Your task to perform on an android device: uninstall "LinkedIn" Image 0: 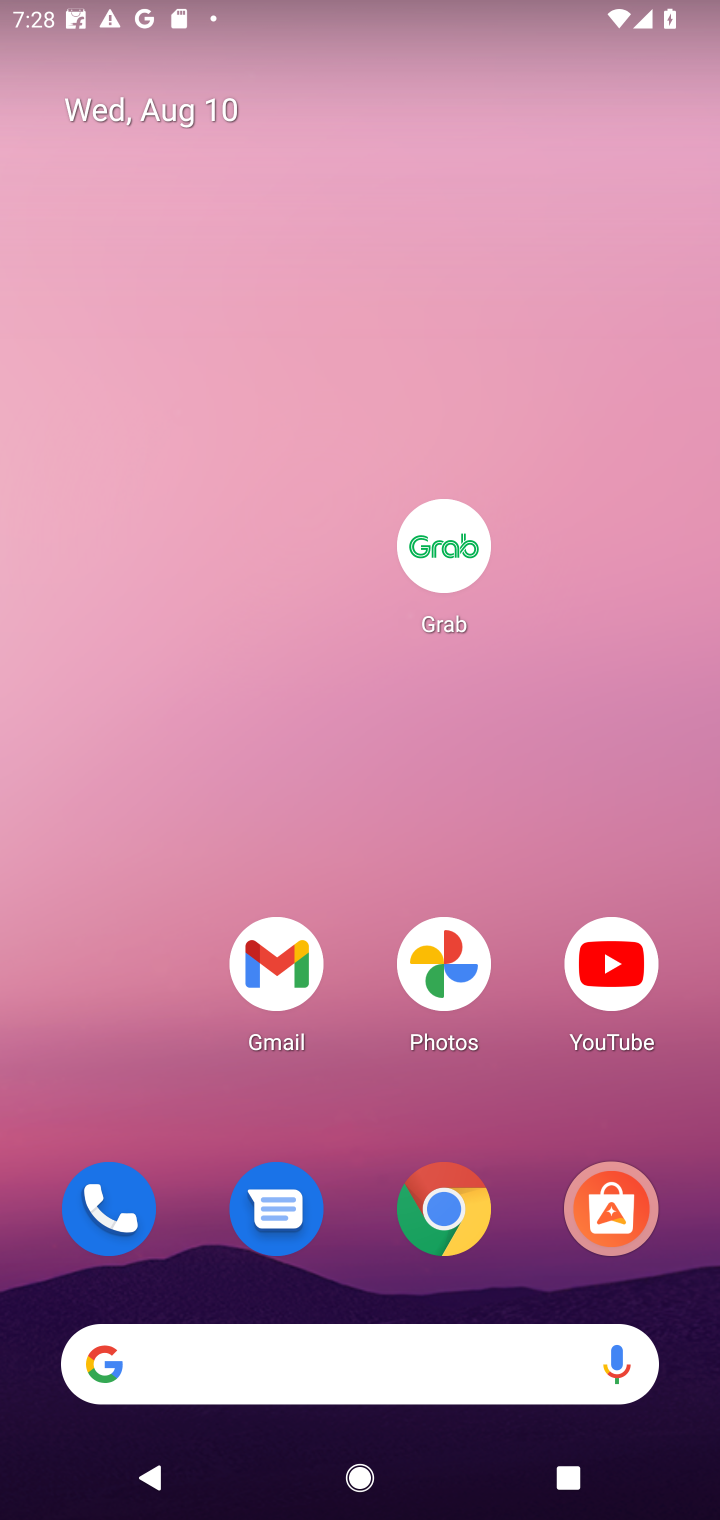
Step 0: drag from (367, 1276) to (362, 196)
Your task to perform on an android device: uninstall "LinkedIn" Image 1: 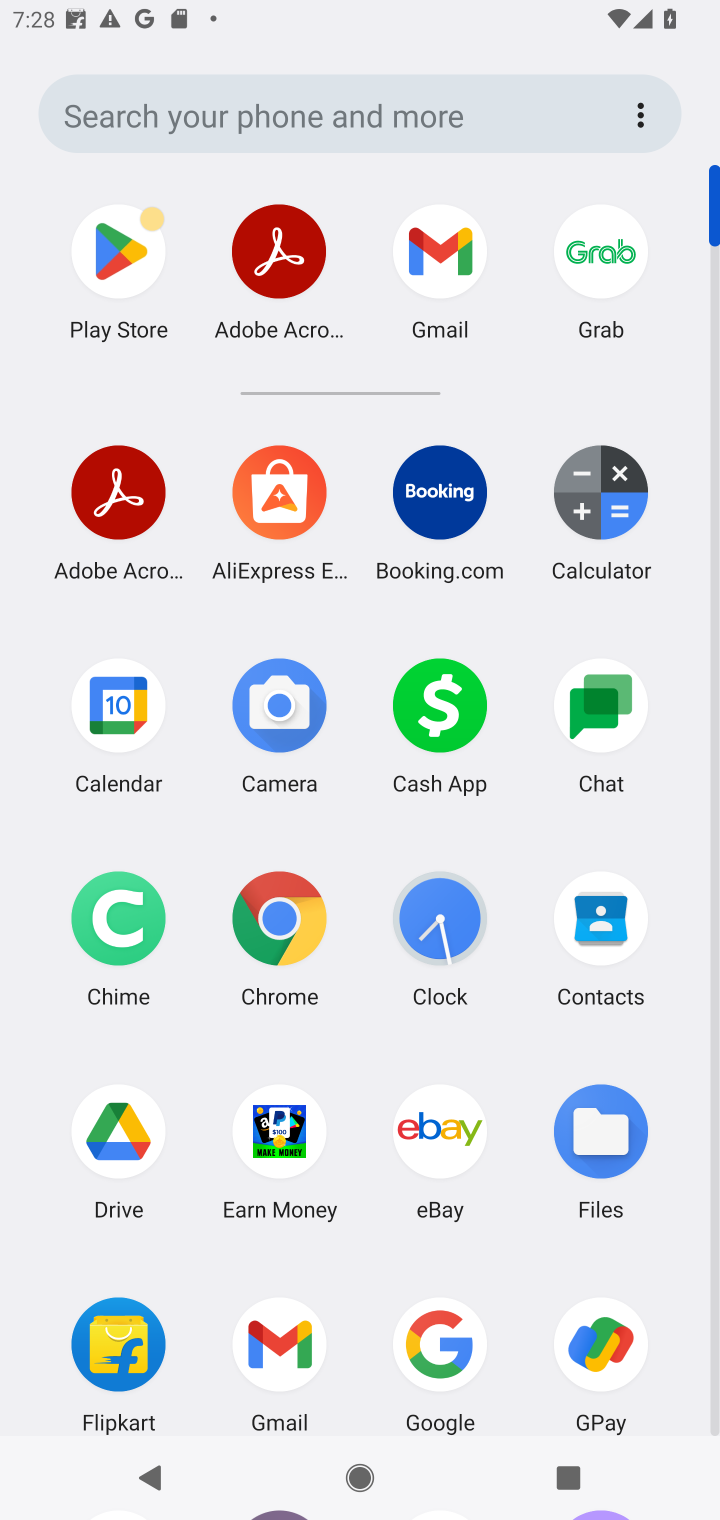
Step 1: click (120, 277)
Your task to perform on an android device: uninstall "LinkedIn" Image 2: 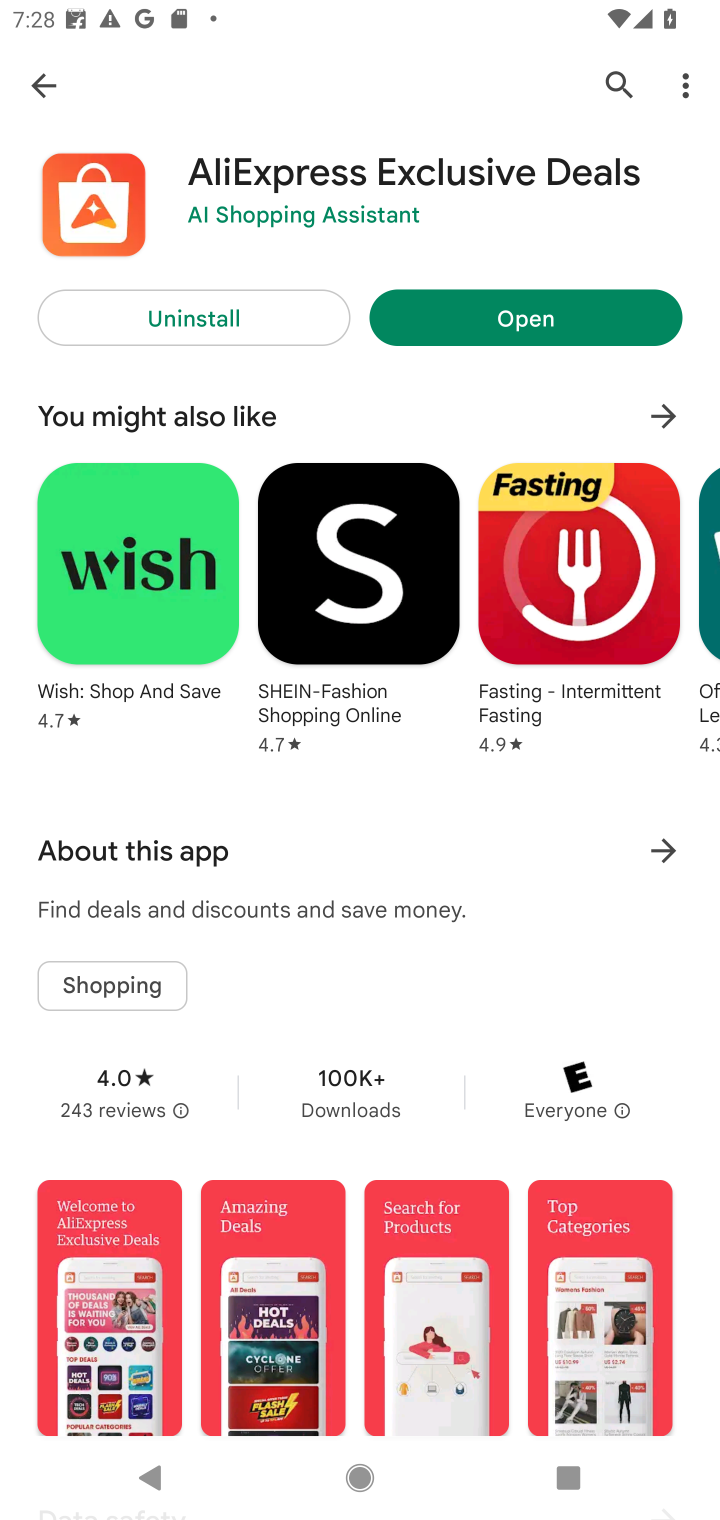
Step 2: click (620, 113)
Your task to perform on an android device: uninstall "LinkedIn" Image 3: 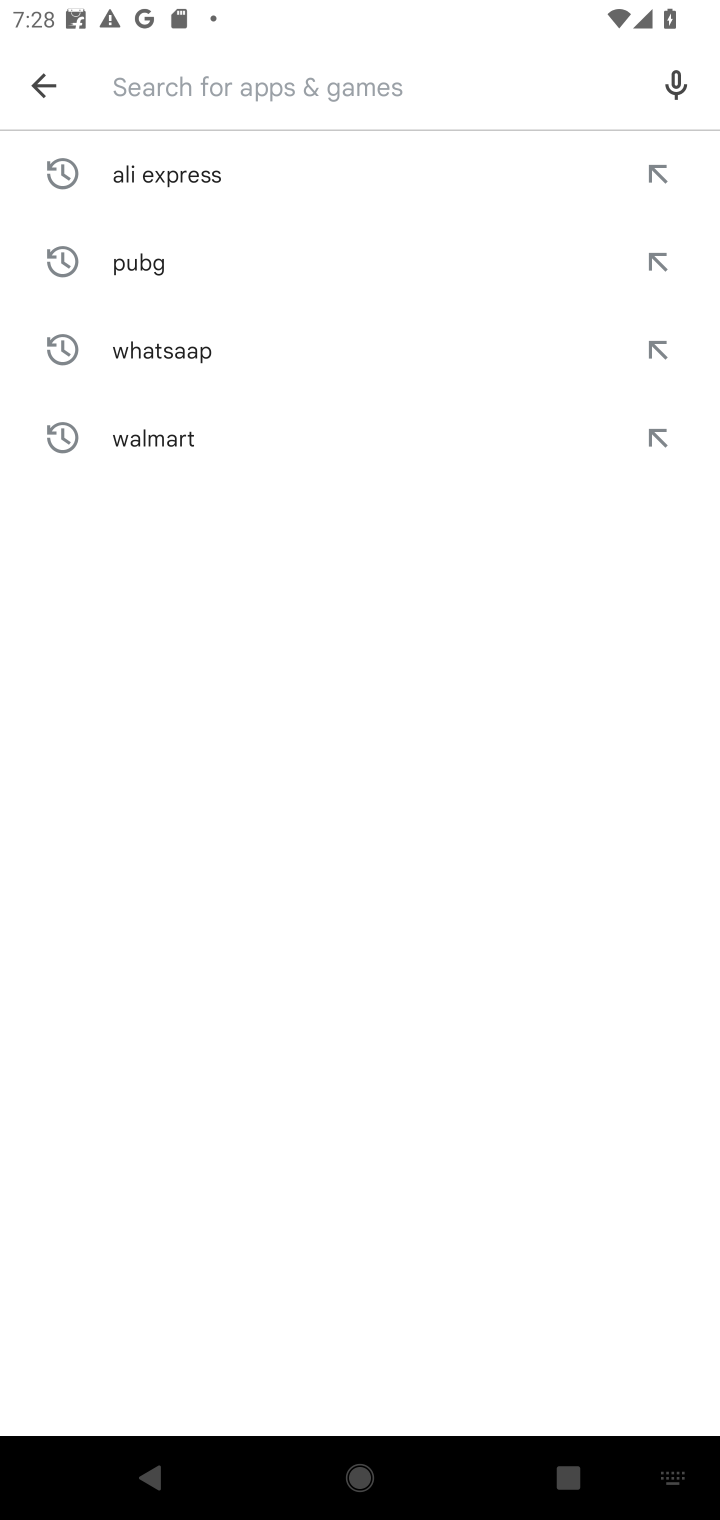
Step 3: type "kinkedin"
Your task to perform on an android device: uninstall "LinkedIn" Image 4: 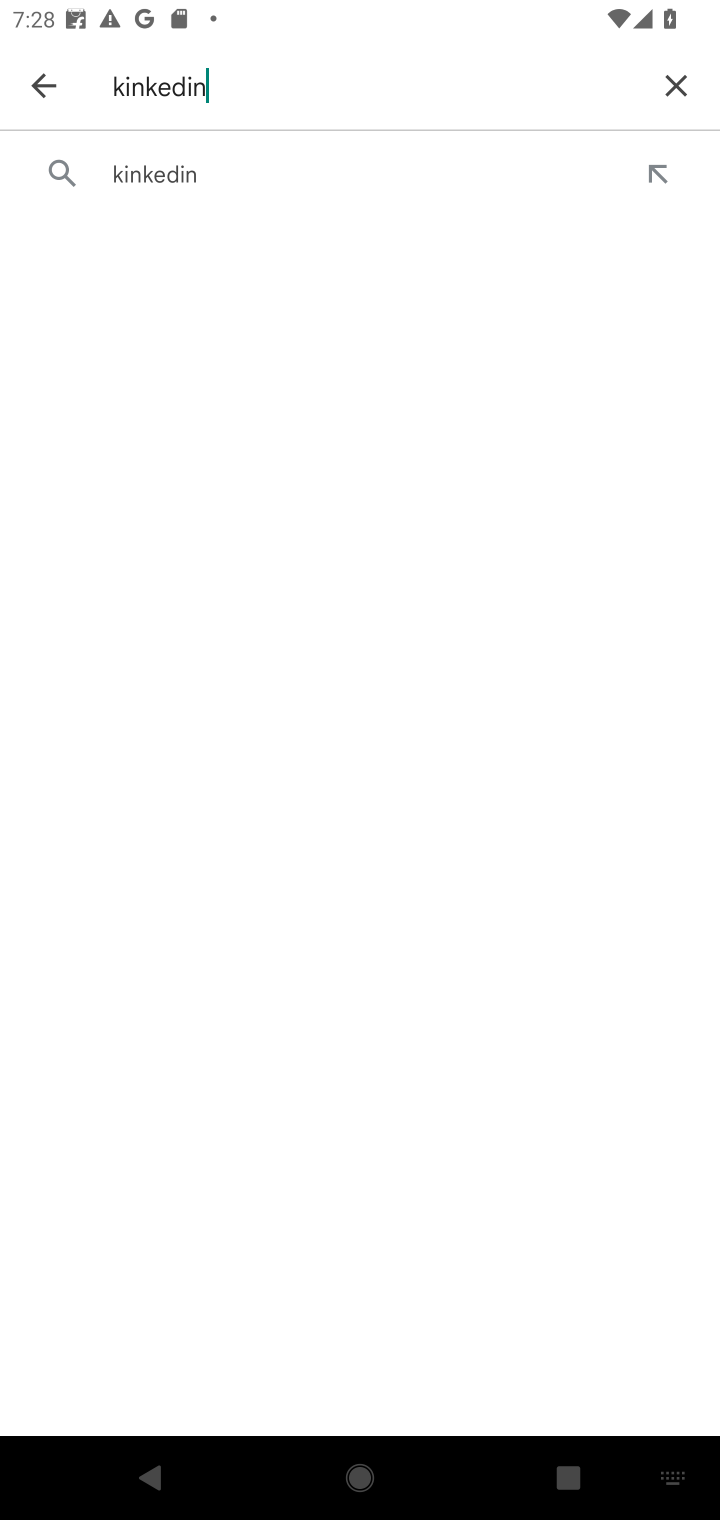
Step 4: click (283, 162)
Your task to perform on an android device: uninstall "LinkedIn" Image 5: 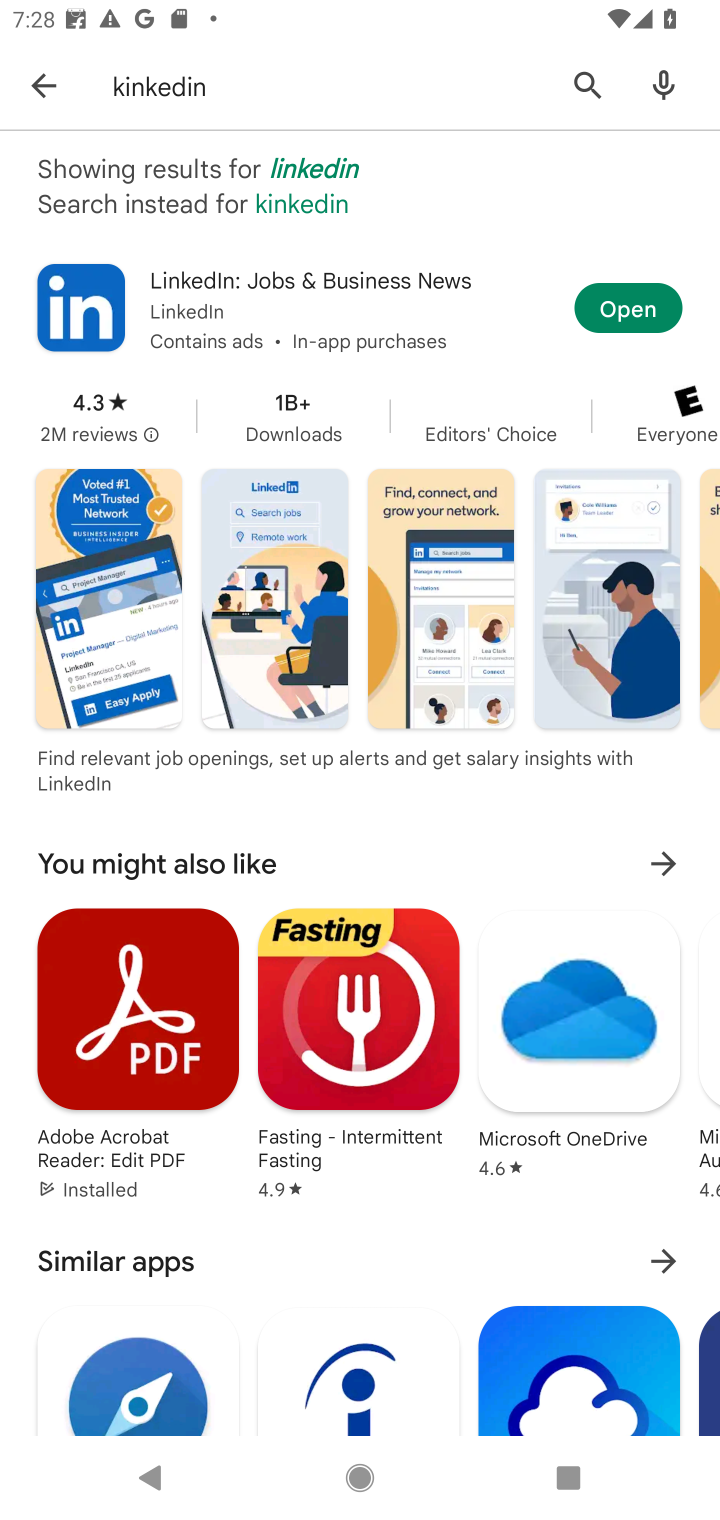
Step 5: click (585, 322)
Your task to perform on an android device: uninstall "LinkedIn" Image 6: 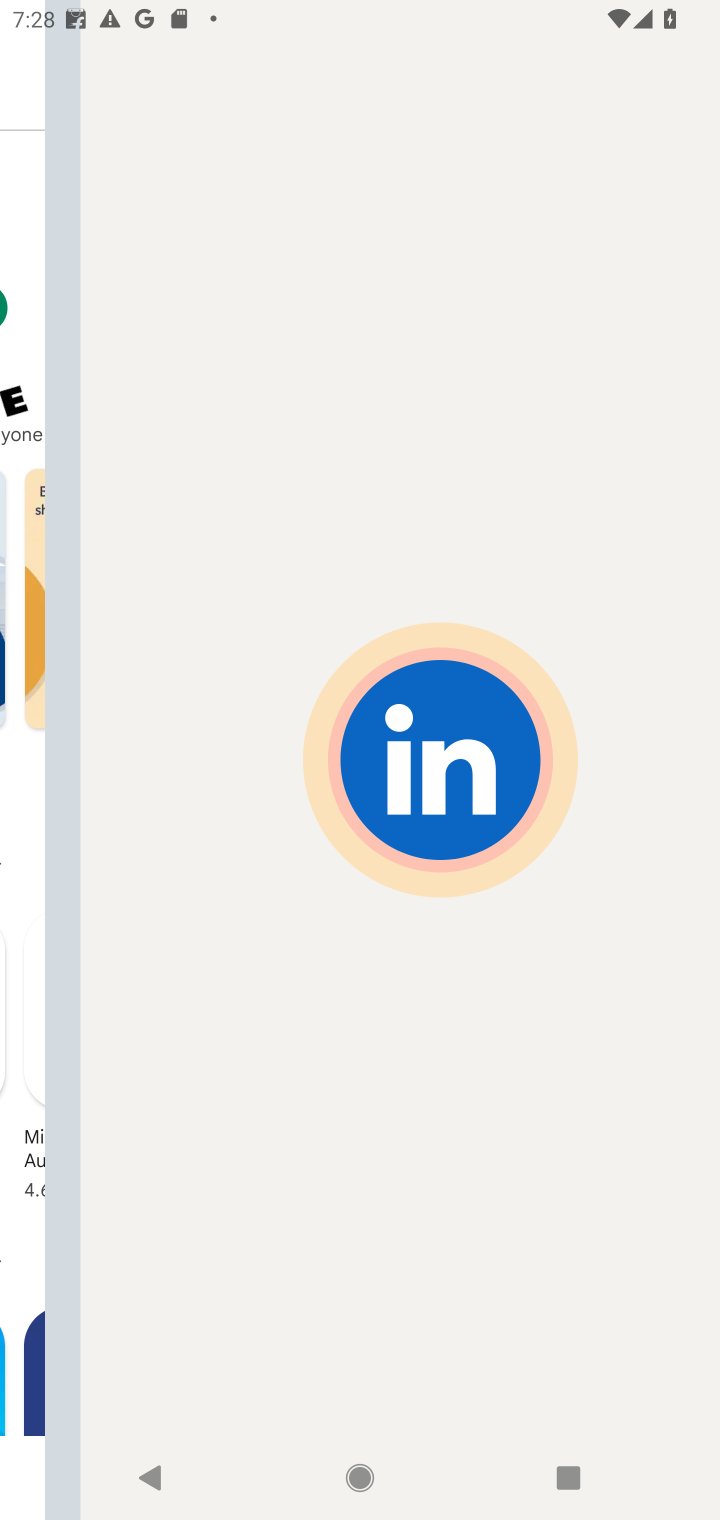
Step 6: click (252, 307)
Your task to perform on an android device: uninstall "LinkedIn" Image 7: 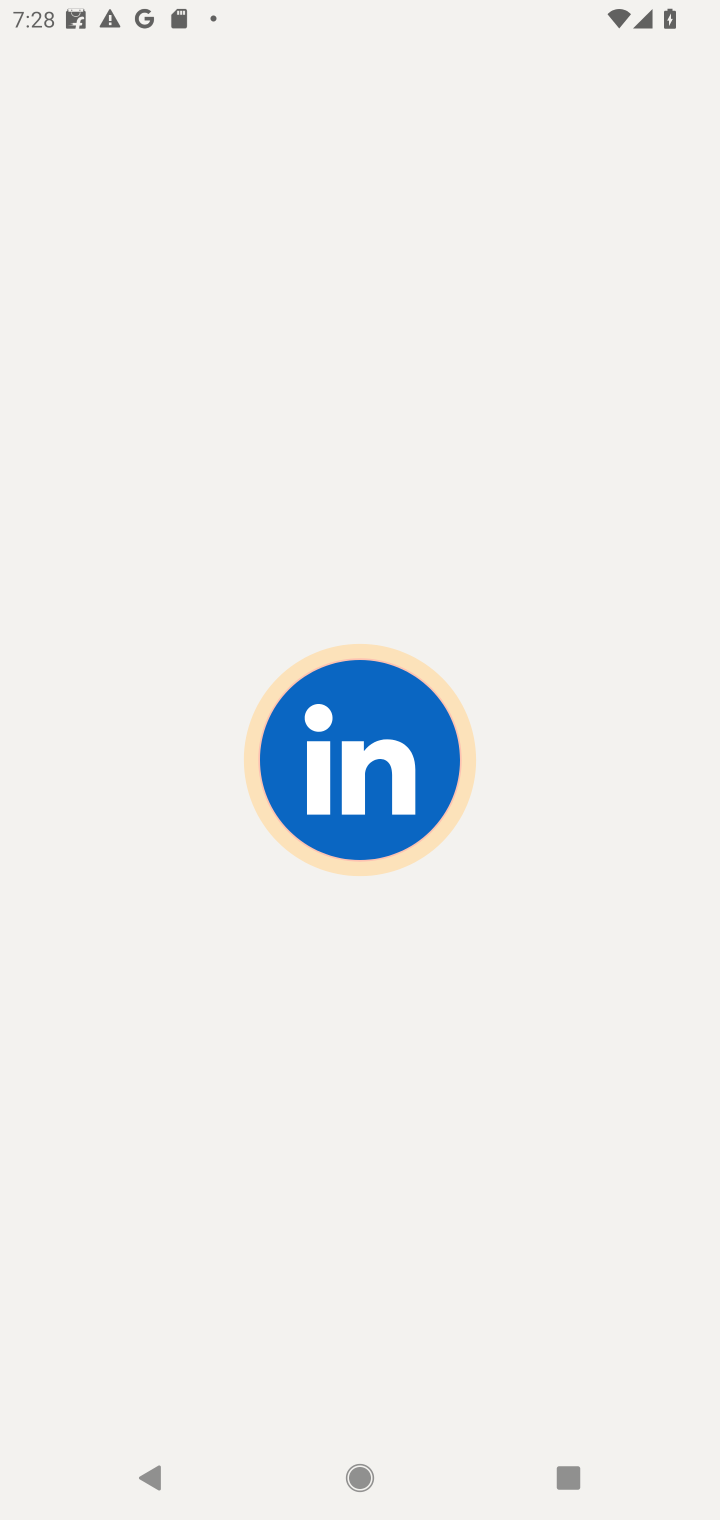
Step 7: press home button
Your task to perform on an android device: uninstall "LinkedIn" Image 8: 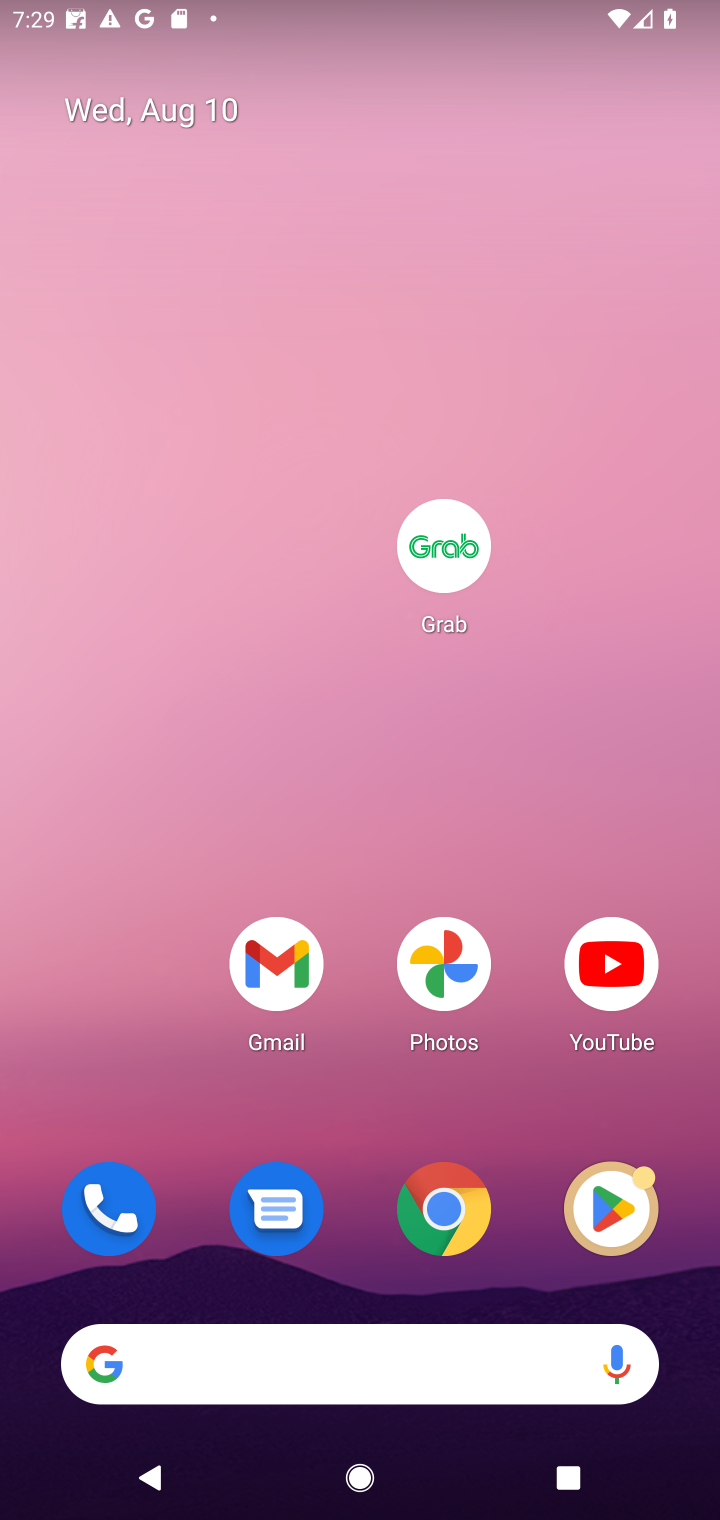
Step 8: drag from (361, 1283) to (344, 245)
Your task to perform on an android device: uninstall "LinkedIn" Image 9: 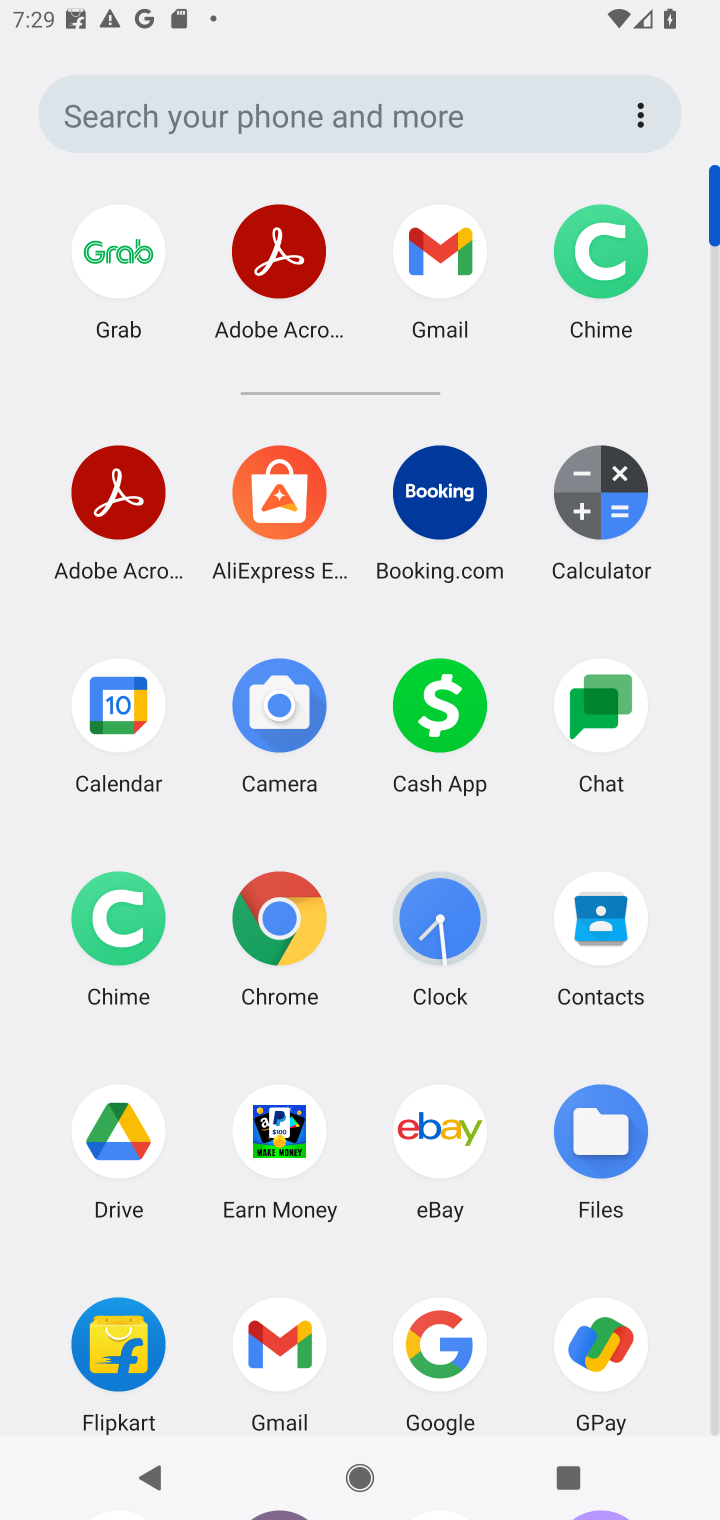
Step 9: drag from (713, 209) to (699, 1036)
Your task to perform on an android device: uninstall "LinkedIn" Image 10: 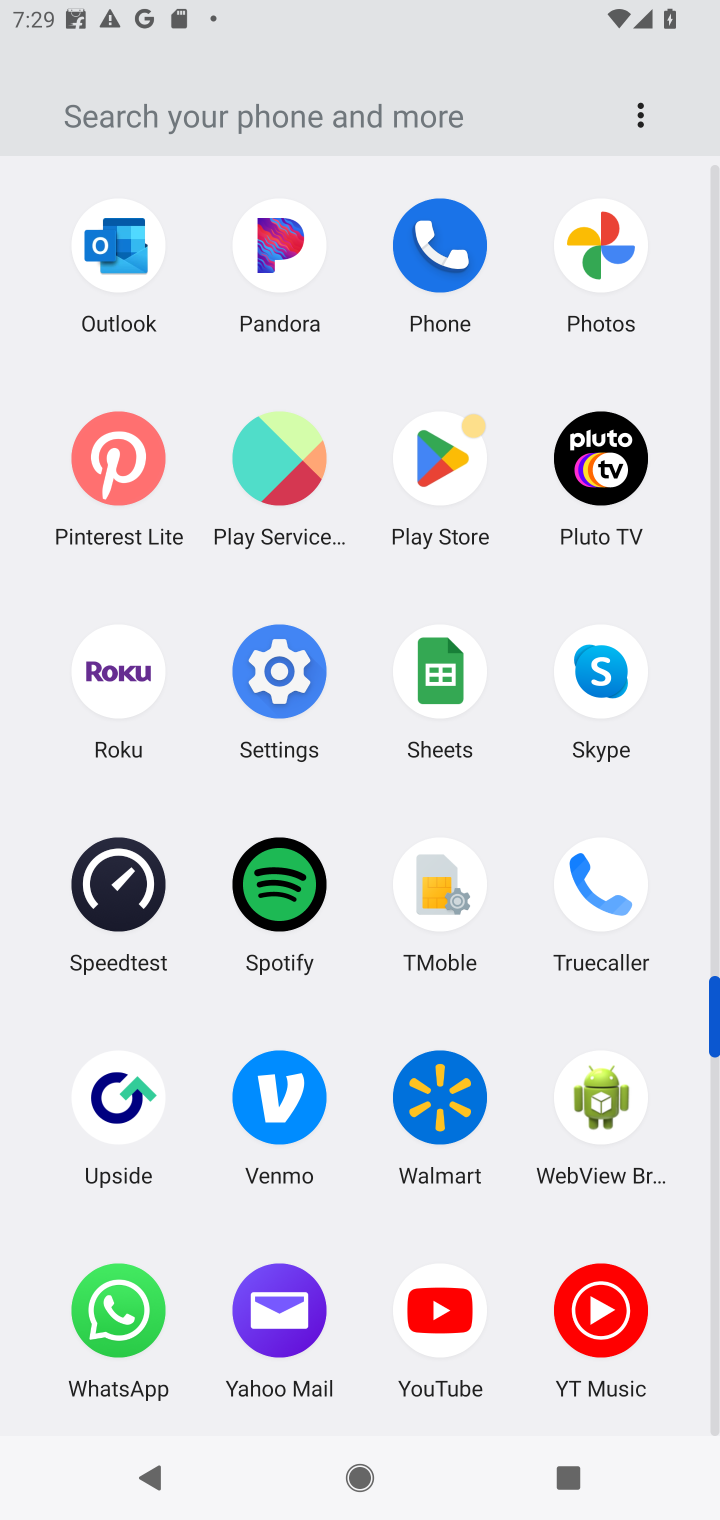
Step 10: drag from (708, 1018) to (704, 1407)
Your task to perform on an android device: uninstall "LinkedIn" Image 11: 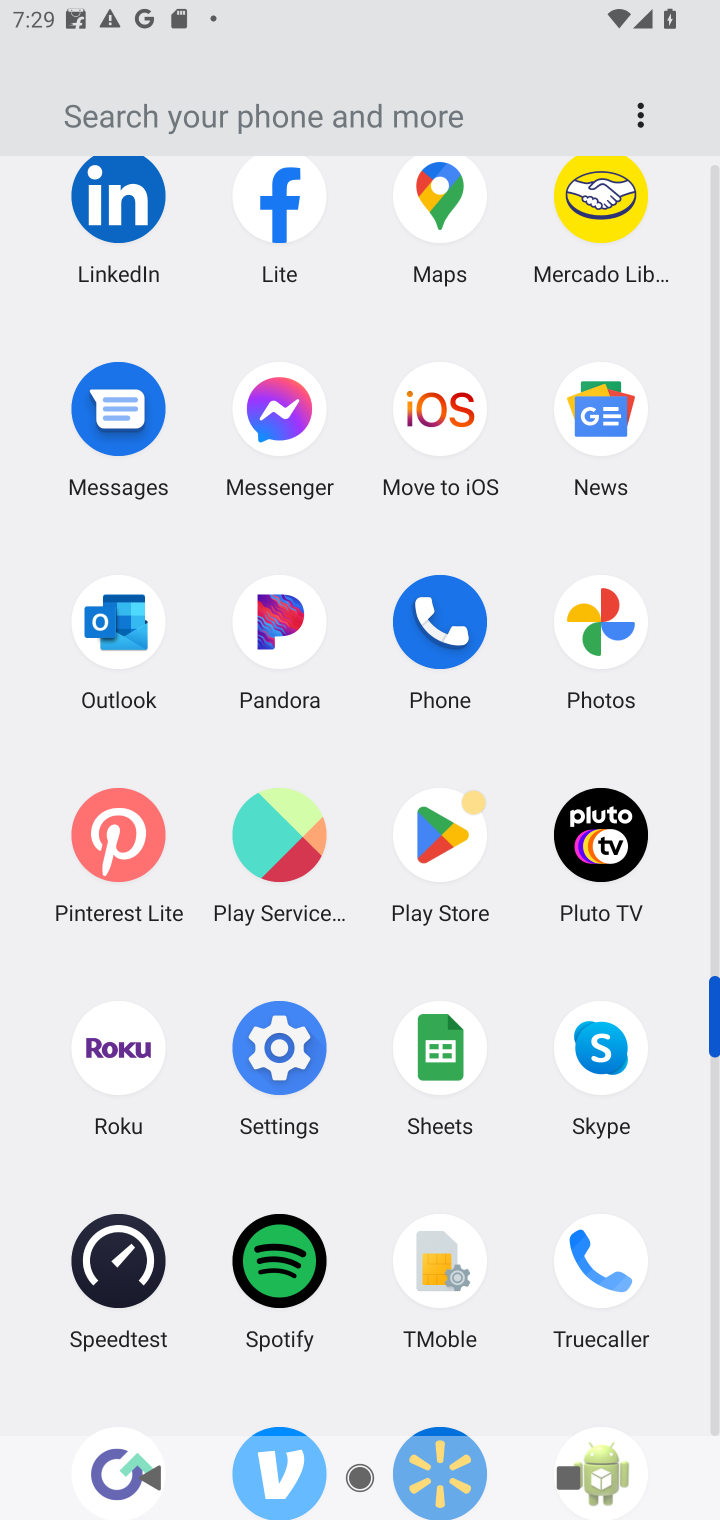
Step 11: click (100, 249)
Your task to perform on an android device: uninstall "LinkedIn" Image 12: 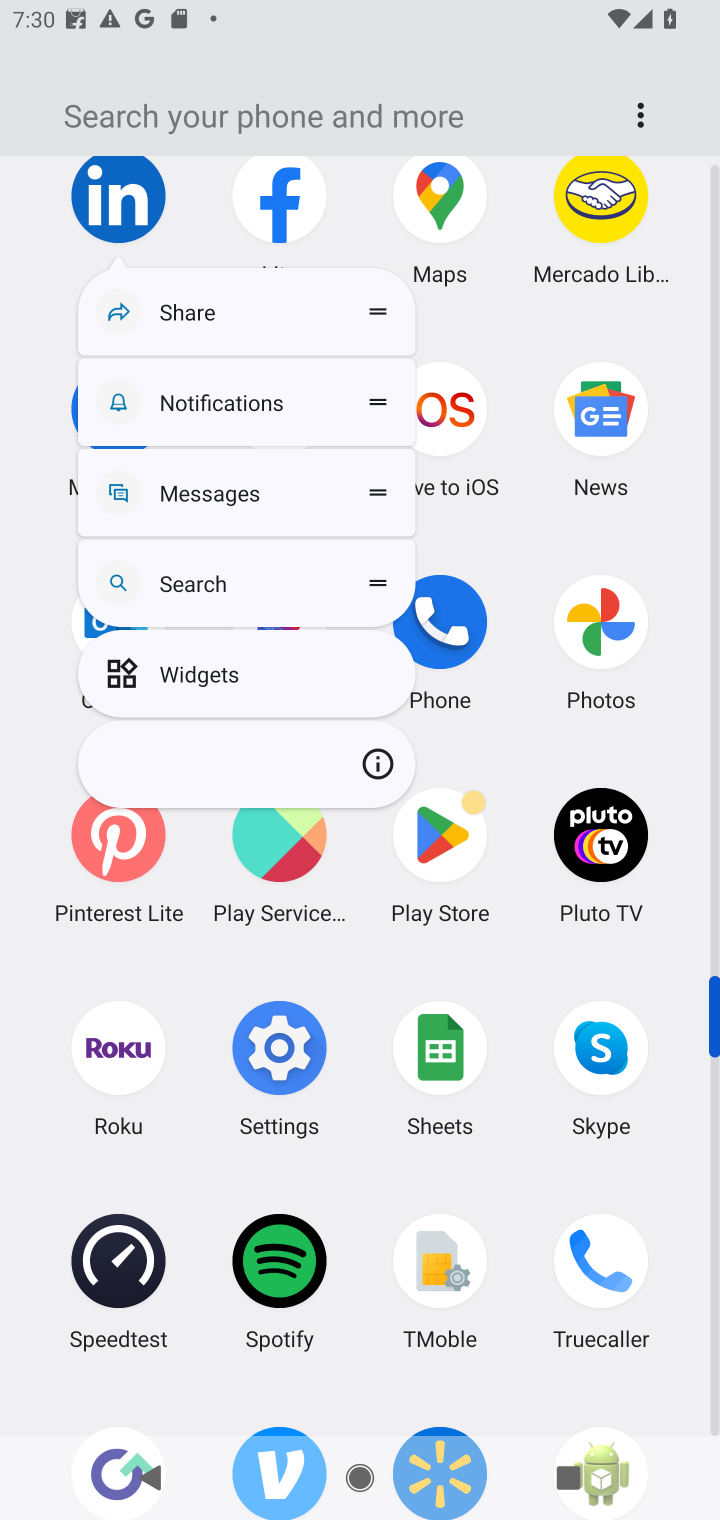
Step 12: click (386, 761)
Your task to perform on an android device: uninstall "LinkedIn" Image 13: 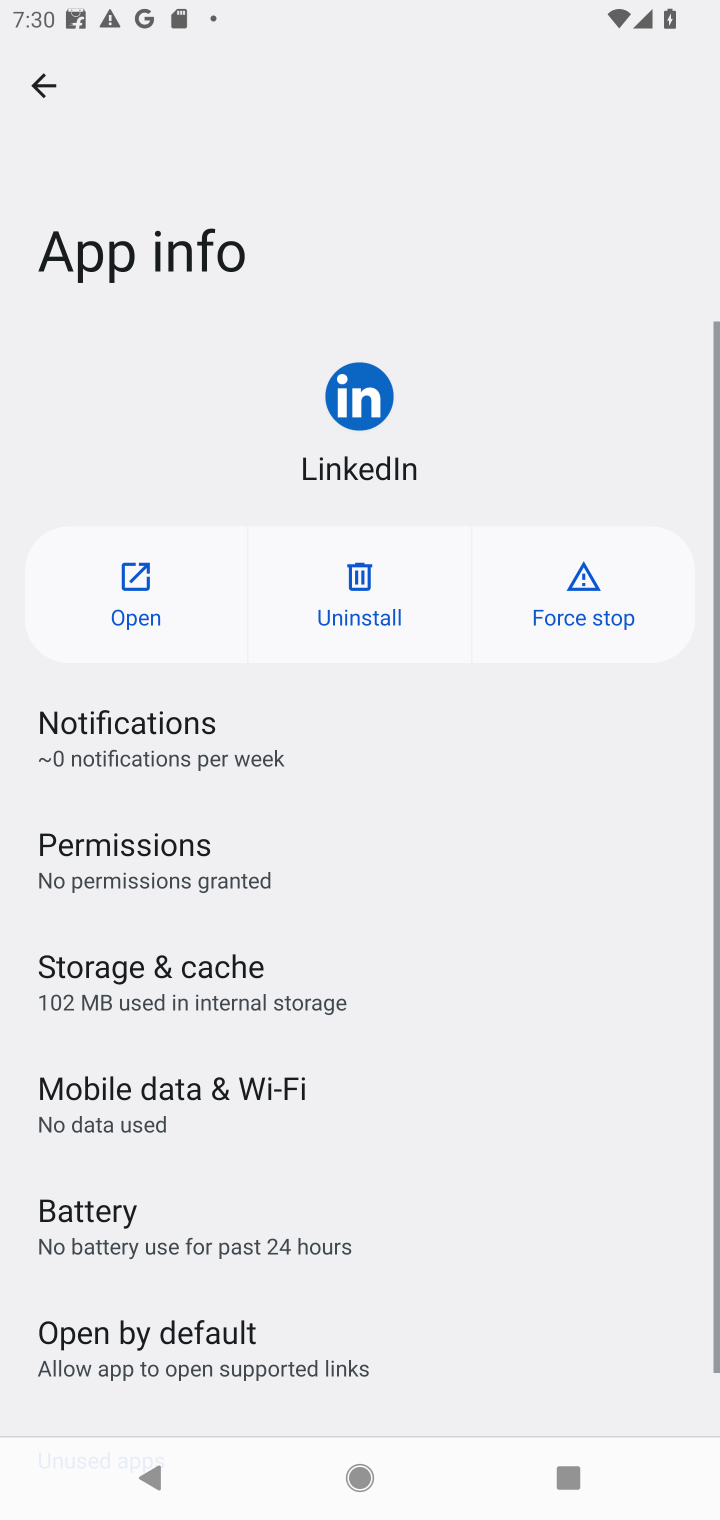
Step 13: click (384, 581)
Your task to perform on an android device: uninstall "LinkedIn" Image 14: 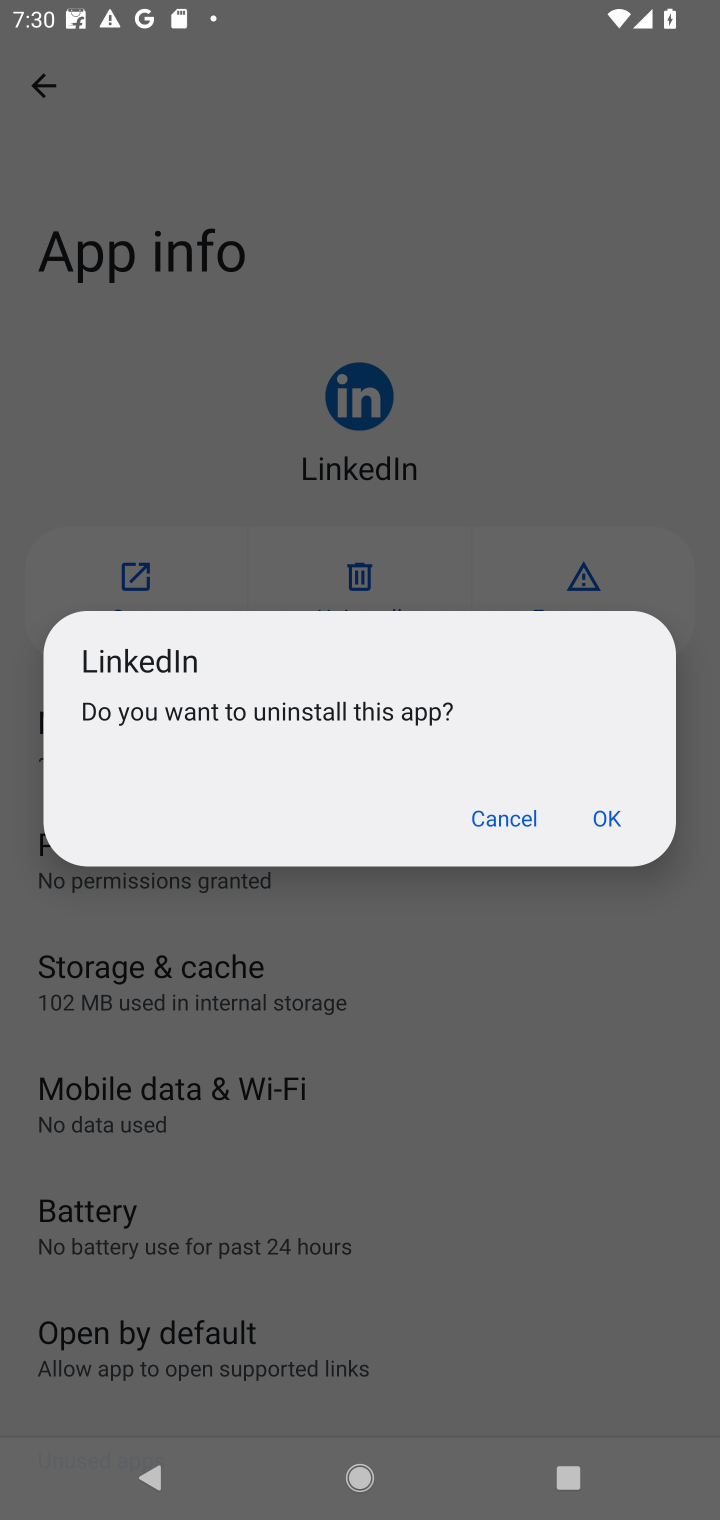
Step 14: click (603, 802)
Your task to perform on an android device: uninstall "LinkedIn" Image 15: 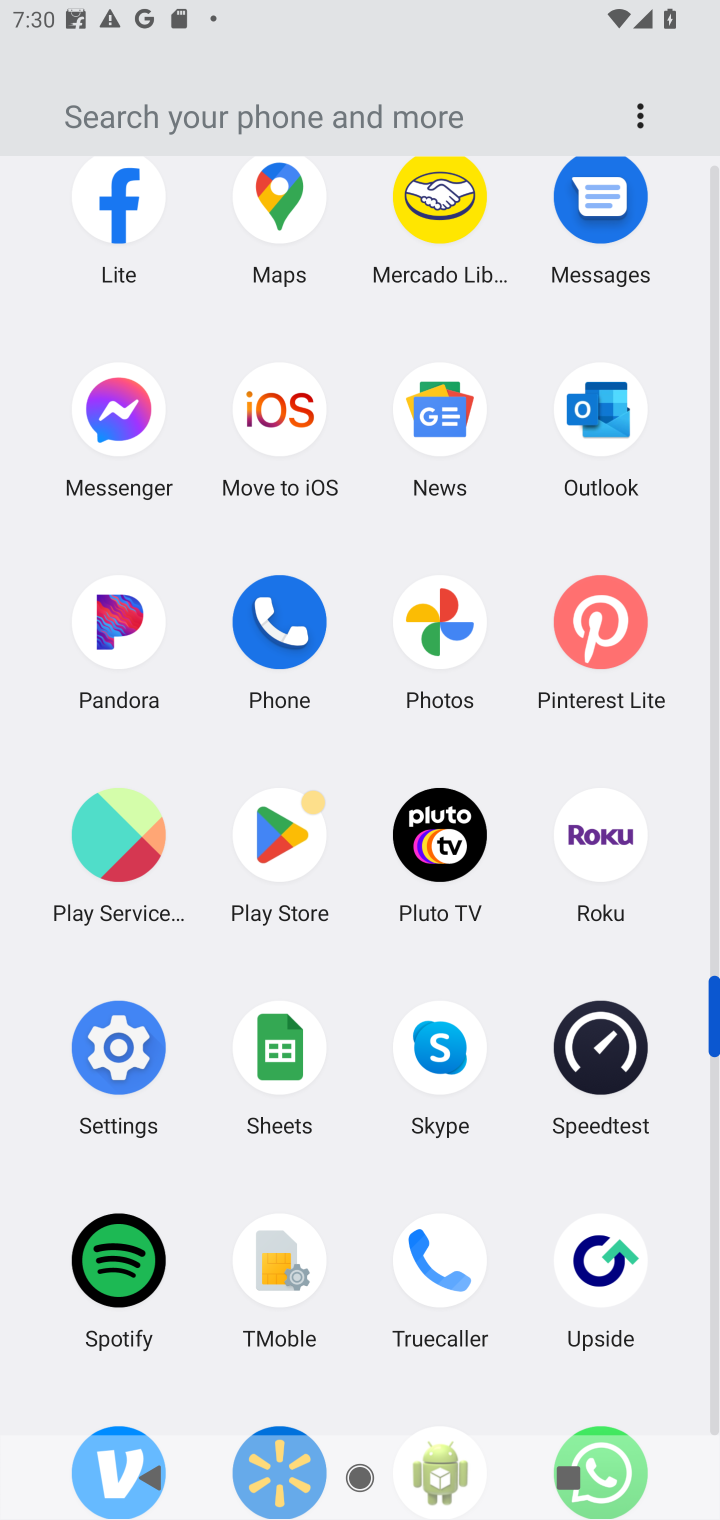
Step 15: task complete